Your task to perform on an android device: change the upload size in google photos Image 0: 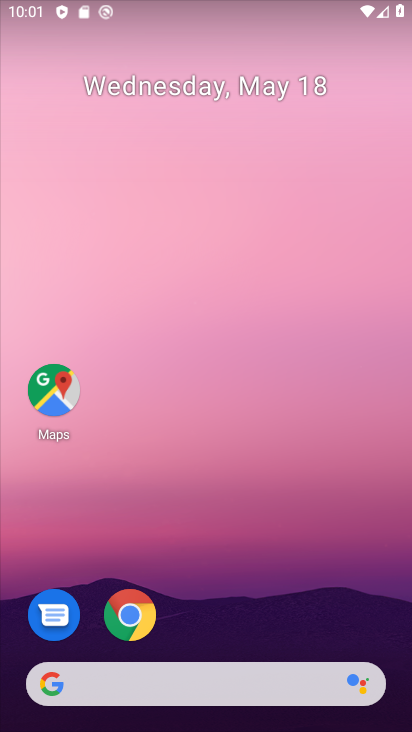
Step 0: drag from (178, 632) to (272, 17)
Your task to perform on an android device: change the upload size in google photos Image 1: 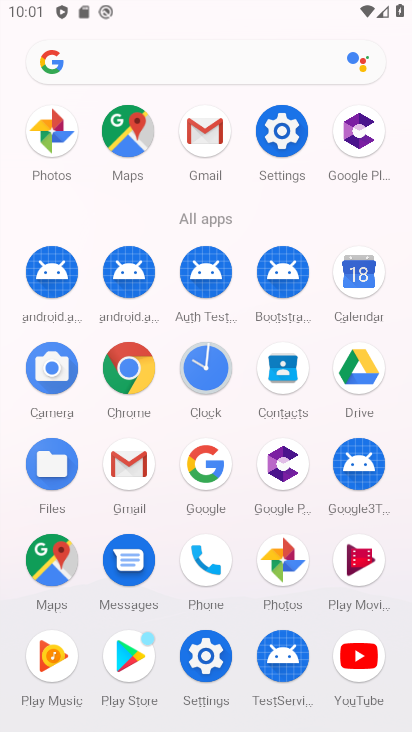
Step 1: click (65, 139)
Your task to perform on an android device: change the upload size in google photos Image 2: 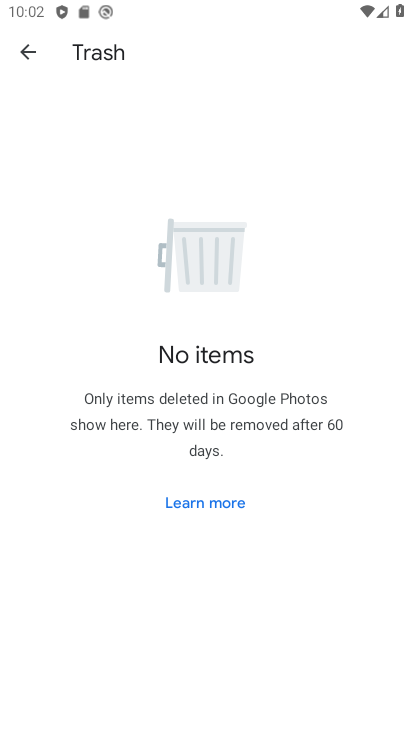
Step 2: click (20, 42)
Your task to perform on an android device: change the upload size in google photos Image 3: 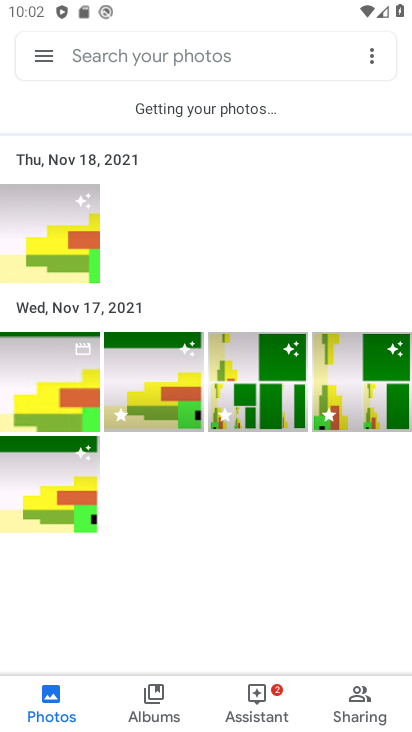
Step 3: click (51, 57)
Your task to perform on an android device: change the upload size in google photos Image 4: 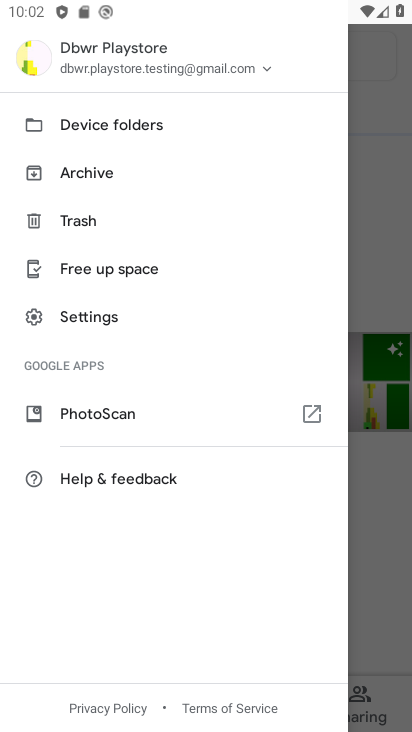
Step 4: click (45, 312)
Your task to perform on an android device: change the upload size in google photos Image 5: 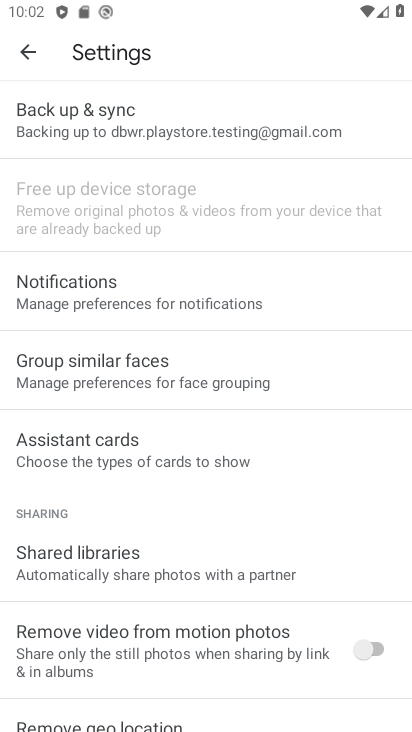
Step 5: click (157, 113)
Your task to perform on an android device: change the upload size in google photos Image 6: 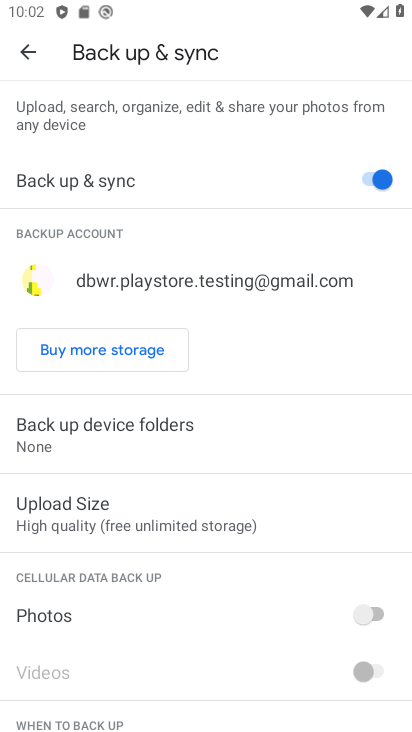
Step 6: click (115, 506)
Your task to perform on an android device: change the upload size in google photos Image 7: 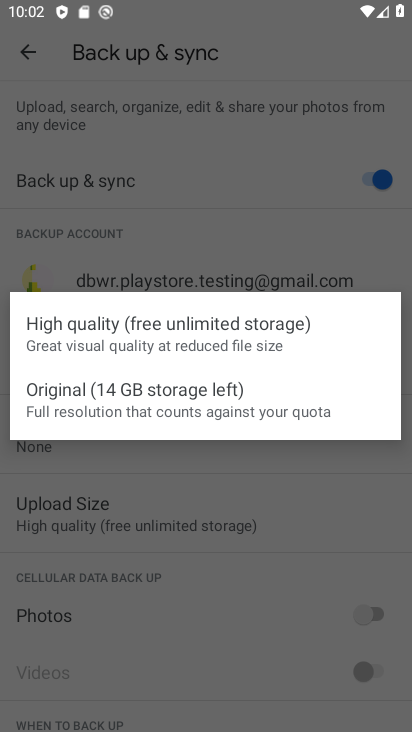
Step 7: click (201, 421)
Your task to perform on an android device: change the upload size in google photos Image 8: 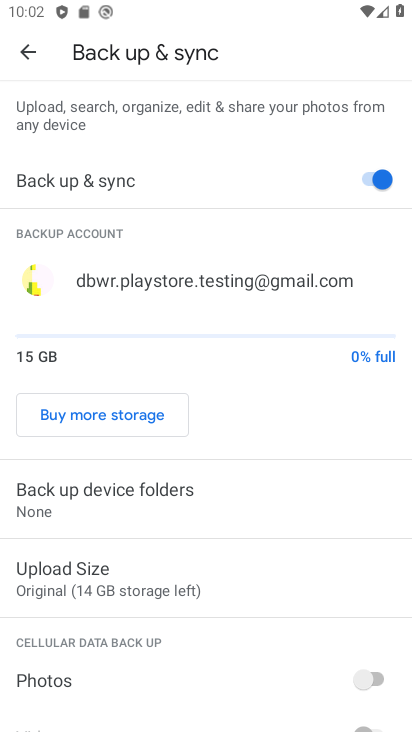
Step 8: task complete